Your task to perform on an android device: change notification settings in the gmail app Image 0: 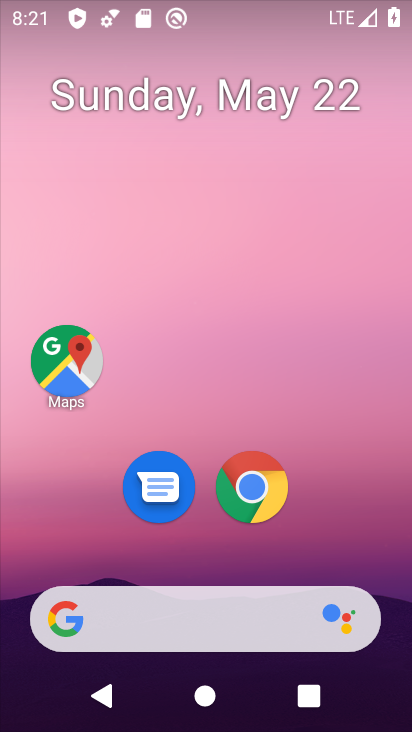
Step 0: drag from (356, 533) to (275, 0)
Your task to perform on an android device: change notification settings in the gmail app Image 1: 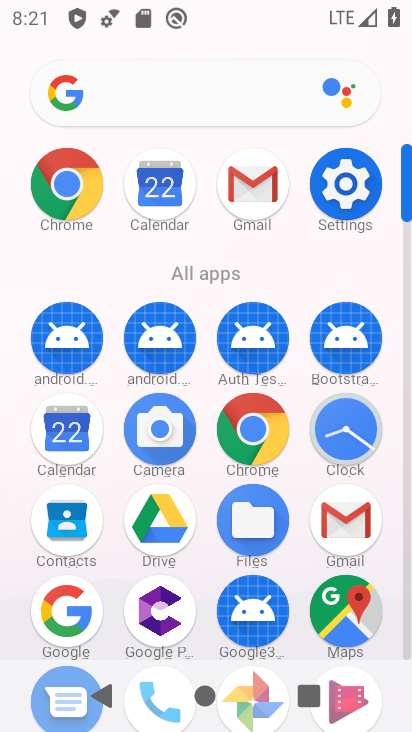
Step 1: click (229, 201)
Your task to perform on an android device: change notification settings in the gmail app Image 2: 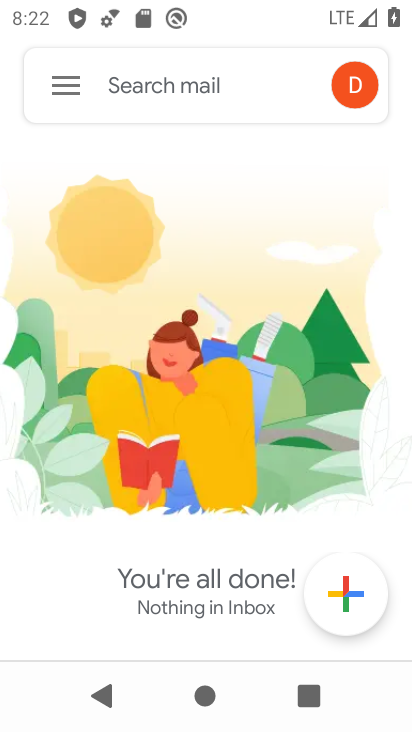
Step 2: click (62, 90)
Your task to perform on an android device: change notification settings in the gmail app Image 3: 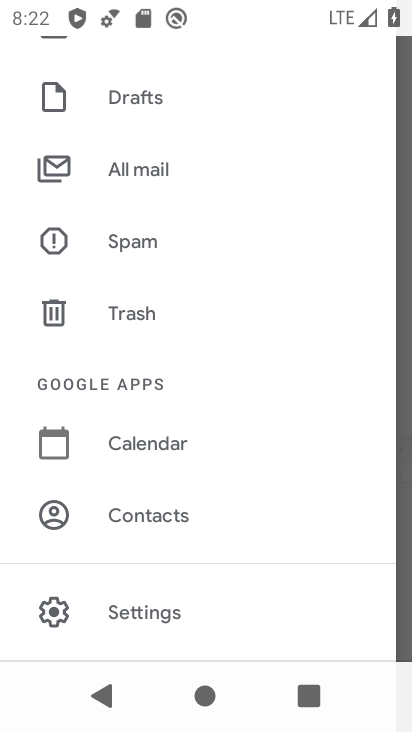
Step 3: click (178, 622)
Your task to perform on an android device: change notification settings in the gmail app Image 4: 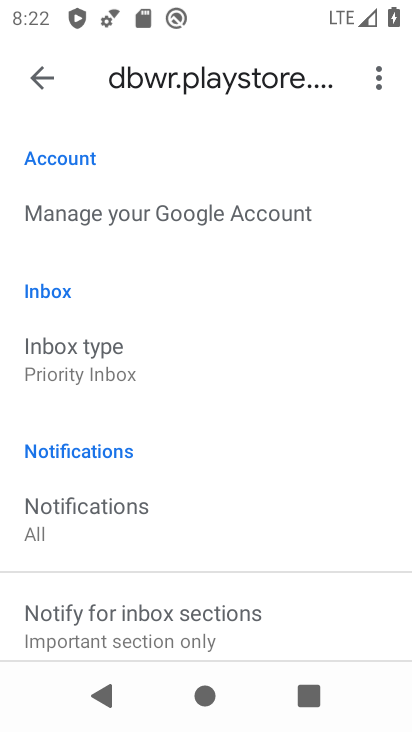
Step 4: click (121, 504)
Your task to perform on an android device: change notification settings in the gmail app Image 5: 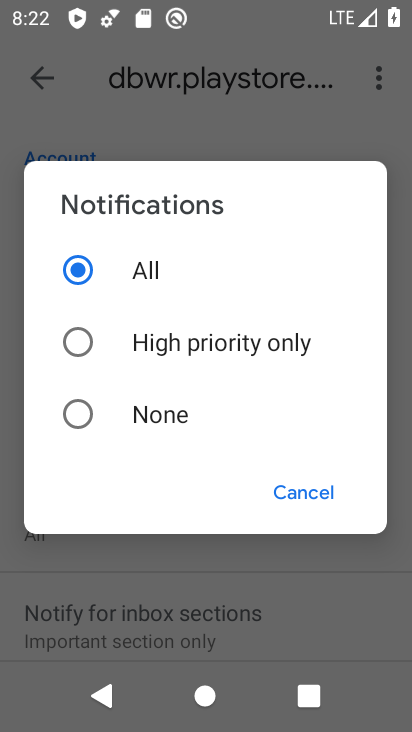
Step 5: click (91, 347)
Your task to perform on an android device: change notification settings in the gmail app Image 6: 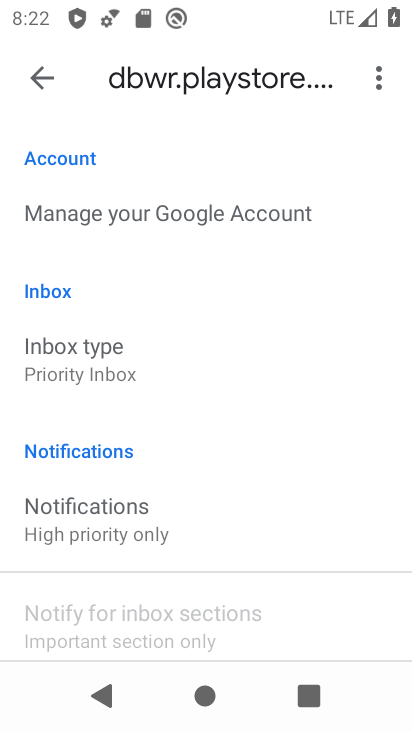
Step 6: task complete